Your task to perform on an android device: turn on the 12-hour format for clock Image 0: 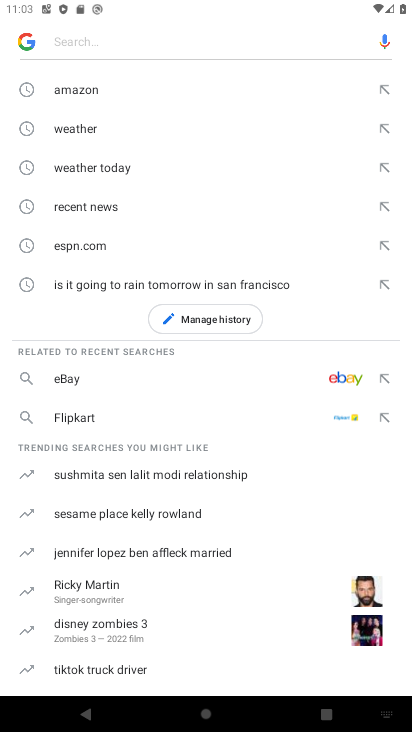
Step 0: press home button
Your task to perform on an android device: turn on the 12-hour format for clock Image 1: 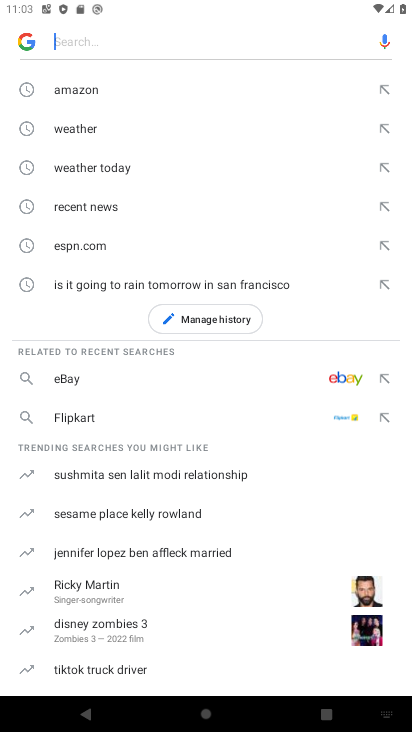
Step 1: press home button
Your task to perform on an android device: turn on the 12-hour format for clock Image 2: 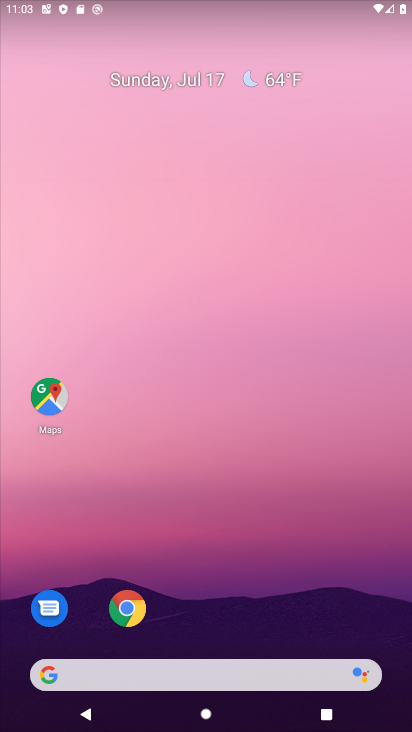
Step 2: drag from (388, 620) to (184, 2)
Your task to perform on an android device: turn on the 12-hour format for clock Image 3: 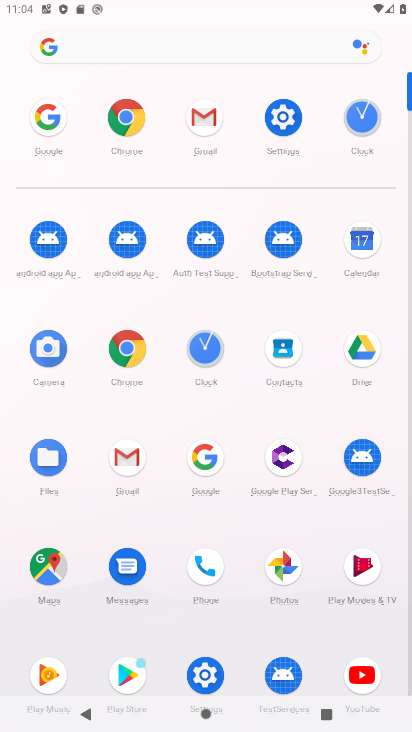
Step 3: click (203, 371)
Your task to perform on an android device: turn on the 12-hour format for clock Image 4: 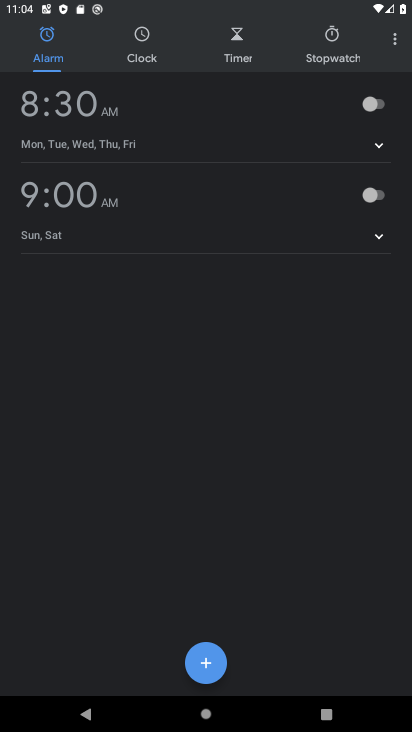
Step 4: click (399, 40)
Your task to perform on an android device: turn on the 12-hour format for clock Image 5: 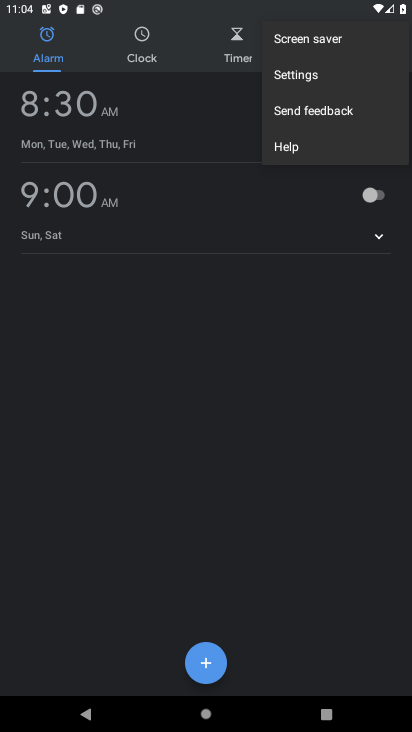
Step 5: click (336, 80)
Your task to perform on an android device: turn on the 12-hour format for clock Image 6: 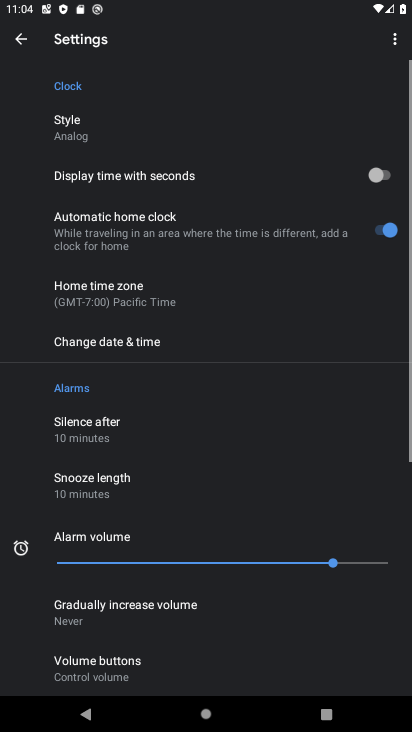
Step 6: click (140, 338)
Your task to perform on an android device: turn on the 12-hour format for clock Image 7: 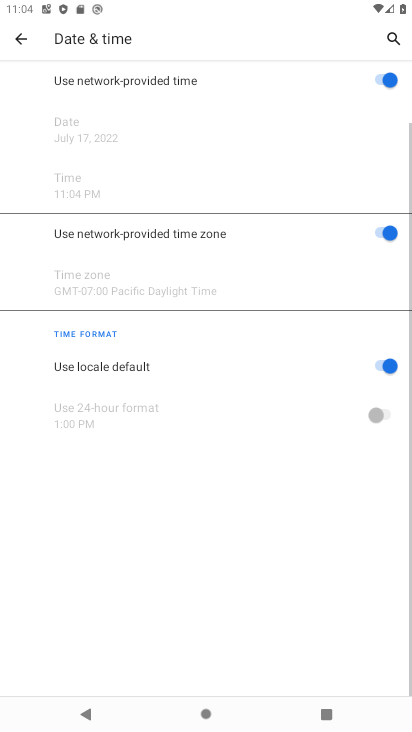
Step 7: task complete